Your task to perform on an android device: Search for sushi restaurants on Maps Image 0: 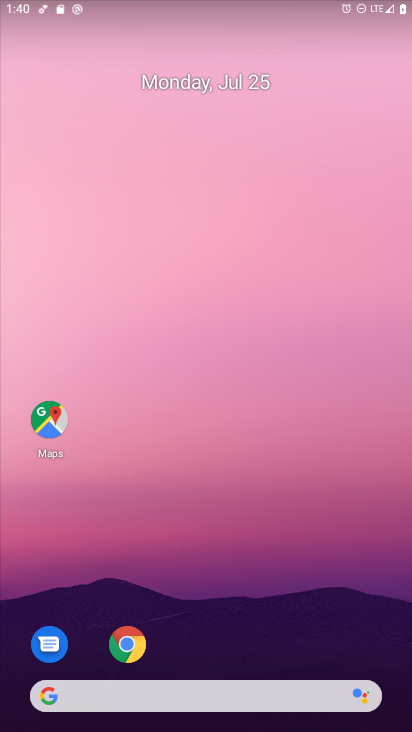
Step 0: click (40, 416)
Your task to perform on an android device: Search for sushi restaurants on Maps Image 1: 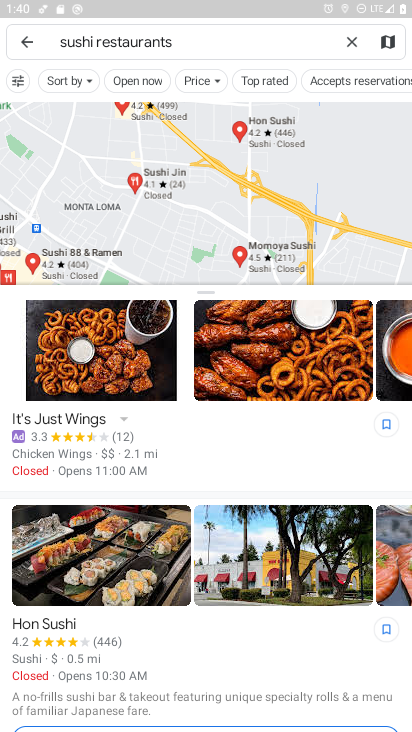
Step 1: task complete